Your task to perform on an android device: Open Google Chrome Image 0: 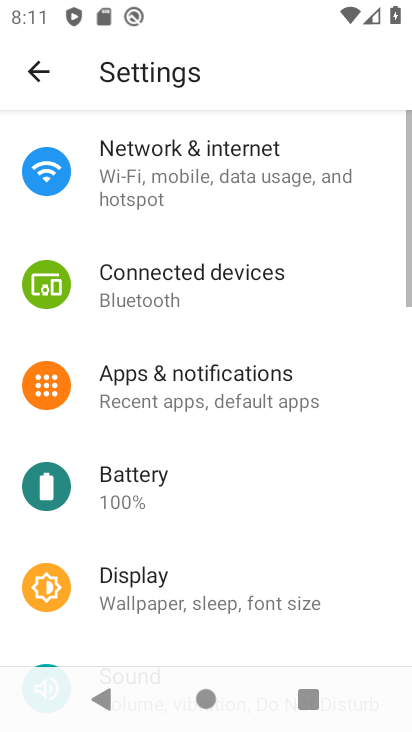
Step 0: press home button
Your task to perform on an android device: Open Google Chrome Image 1: 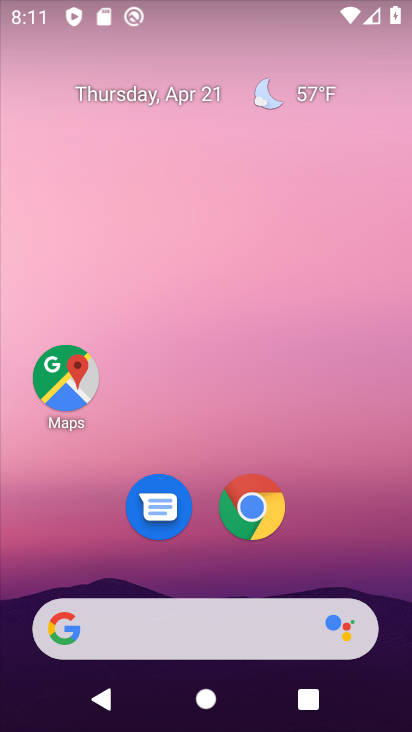
Step 1: drag from (363, 551) to (286, 730)
Your task to perform on an android device: Open Google Chrome Image 2: 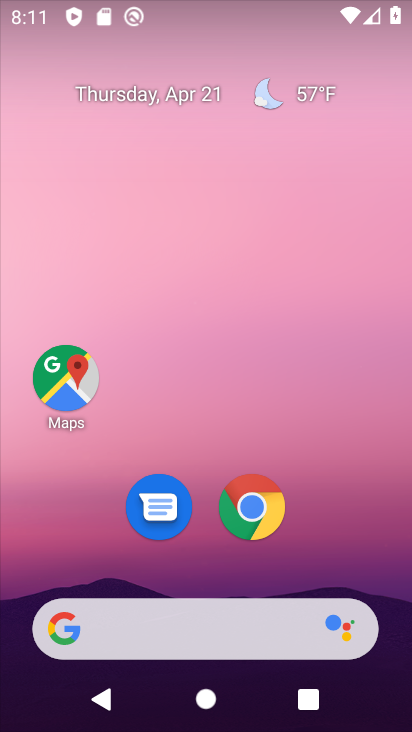
Step 2: click (249, 520)
Your task to perform on an android device: Open Google Chrome Image 3: 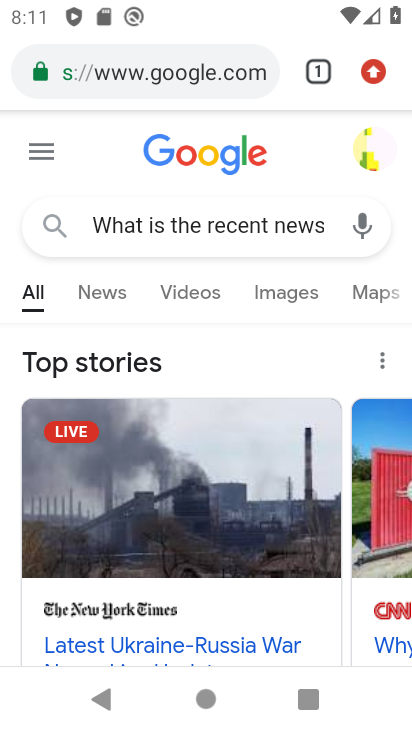
Step 3: task complete